Your task to perform on an android device: Go to wifi settings Image 0: 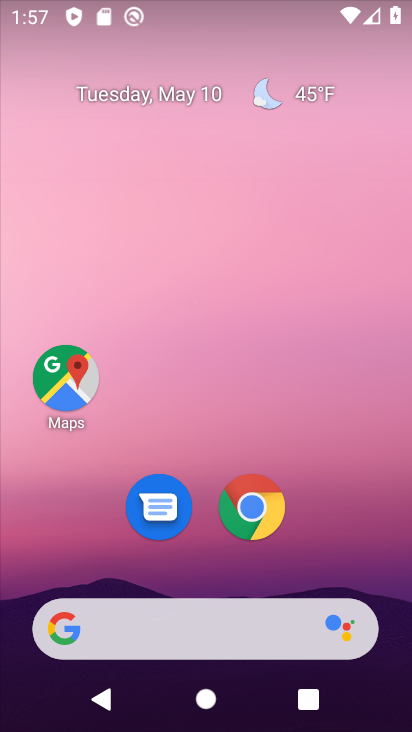
Step 0: drag from (336, 482) to (145, 176)
Your task to perform on an android device: Go to wifi settings Image 1: 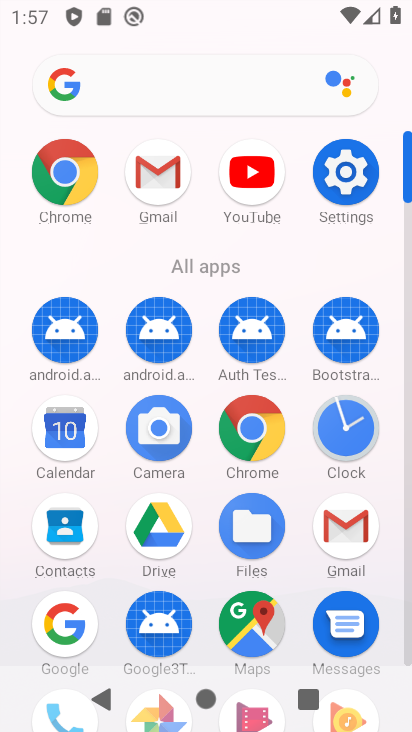
Step 1: click (356, 176)
Your task to perform on an android device: Go to wifi settings Image 2: 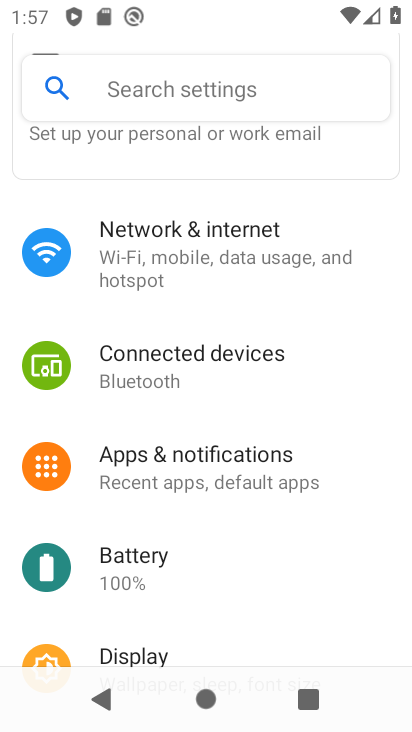
Step 2: click (189, 260)
Your task to perform on an android device: Go to wifi settings Image 3: 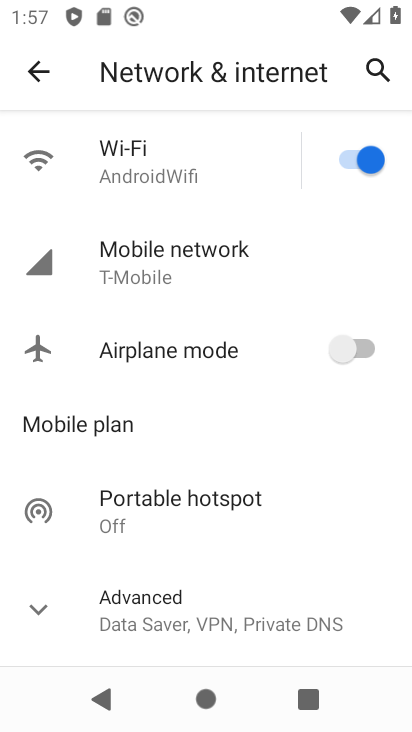
Step 3: click (148, 162)
Your task to perform on an android device: Go to wifi settings Image 4: 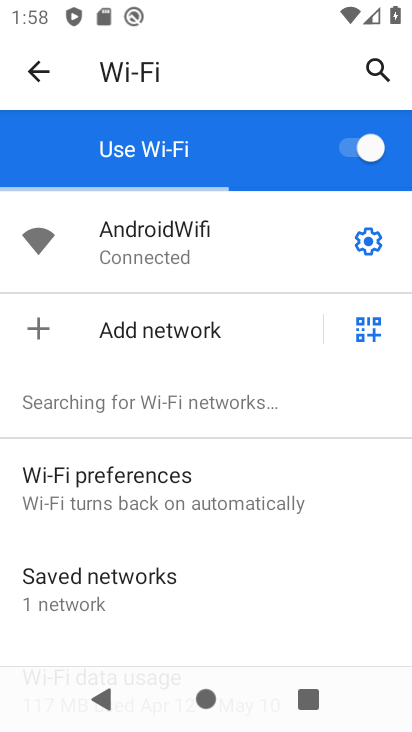
Step 4: task complete